Your task to perform on an android device: Open calendar and show me the second week of next month Image 0: 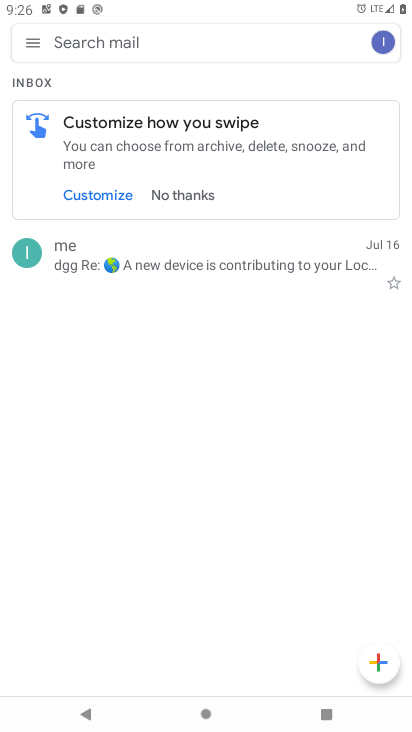
Step 0: press home button
Your task to perform on an android device: Open calendar and show me the second week of next month Image 1: 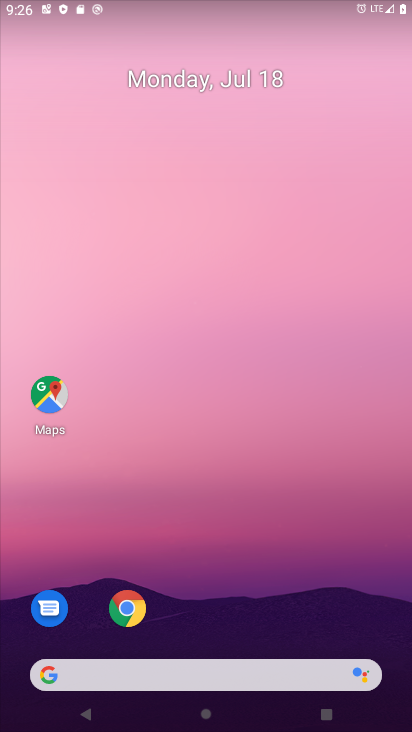
Step 1: drag from (234, 711) to (184, 177)
Your task to perform on an android device: Open calendar and show me the second week of next month Image 2: 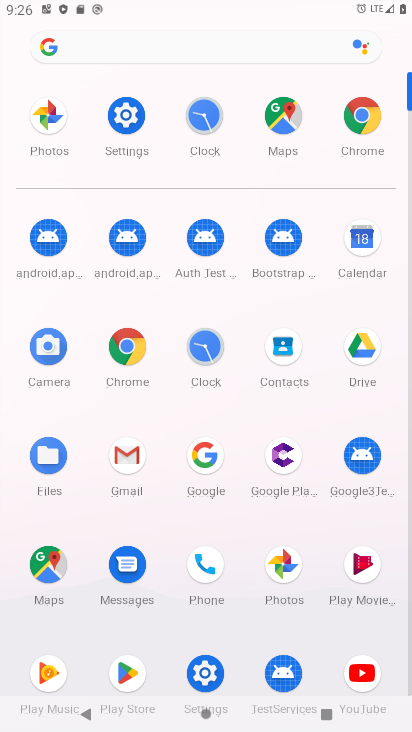
Step 2: click (361, 235)
Your task to perform on an android device: Open calendar and show me the second week of next month Image 3: 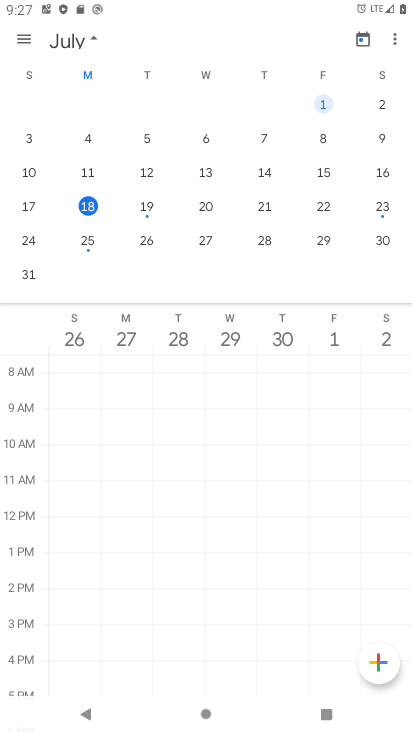
Step 3: drag from (299, 204) to (1, 203)
Your task to perform on an android device: Open calendar and show me the second week of next month Image 4: 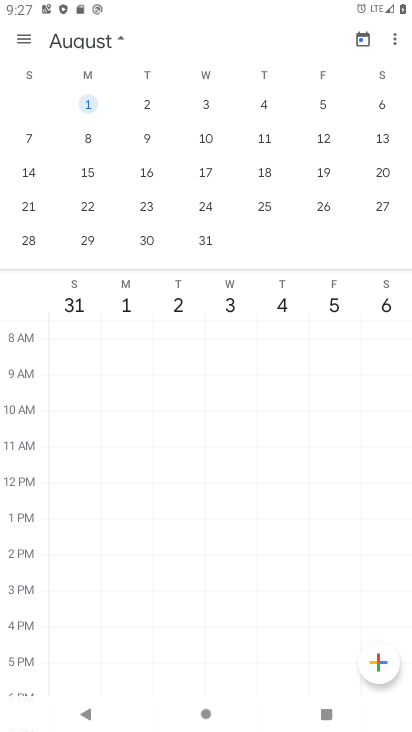
Step 4: click (89, 137)
Your task to perform on an android device: Open calendar and show me the second week of next month Image 5: 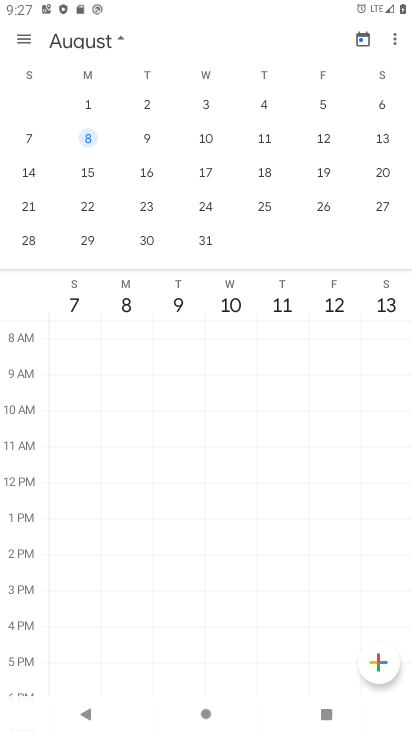
Step 5: click (24, 36)
Your task to perform on an android device: Open calendar and show me the second week of next month Image 6: 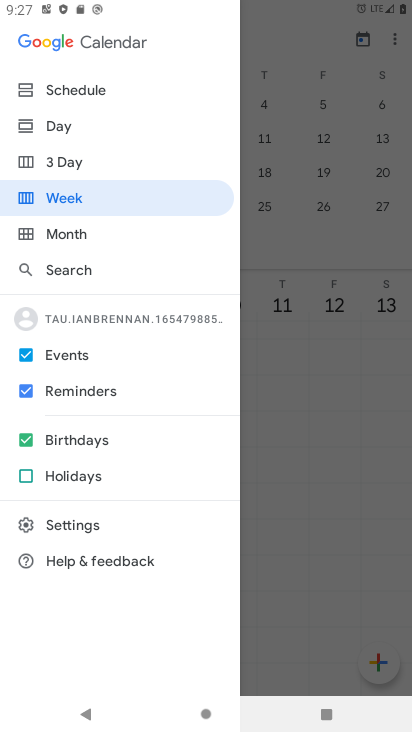
Step 6: click (77, 199)
Your task to perform on an android device: Open calendar and show me the second week of next month Image 7: 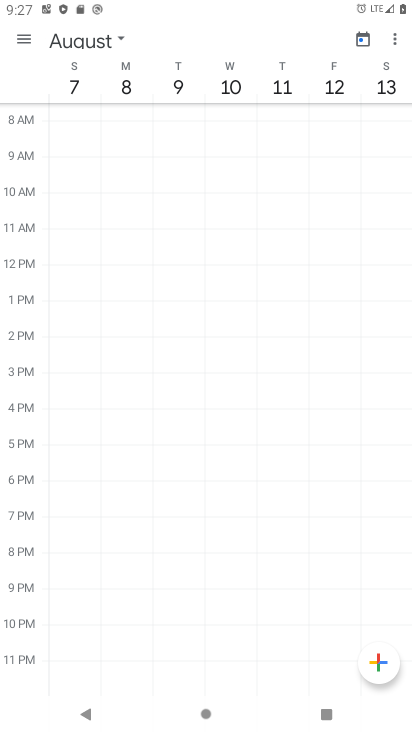
Step 7: task complete